Your task to perform on an android device: allow cookies in the chrome app Image 0: 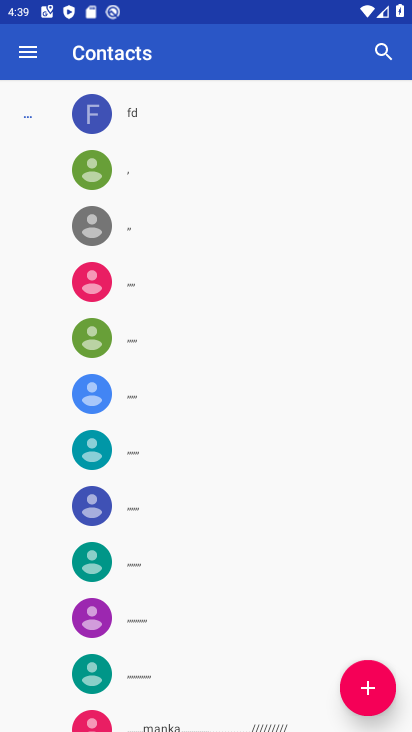
Step 0: press home button
Your task to perform on an android device: allow cookies in the chrome app Image 1: 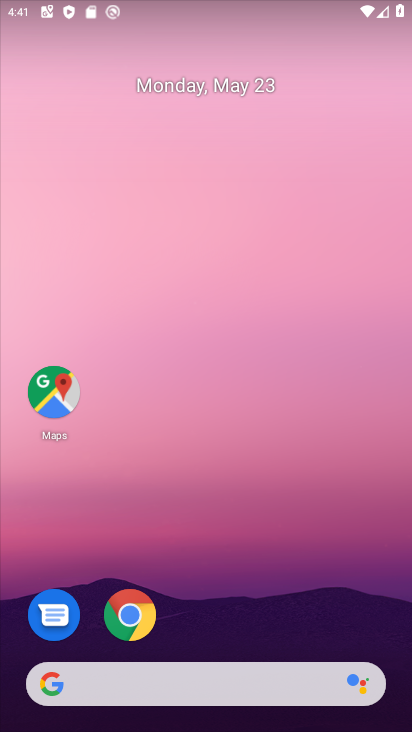
Step 1: click (146, 603)
Your task to perform on an android device: allow cookies in the chrome app Image 2: 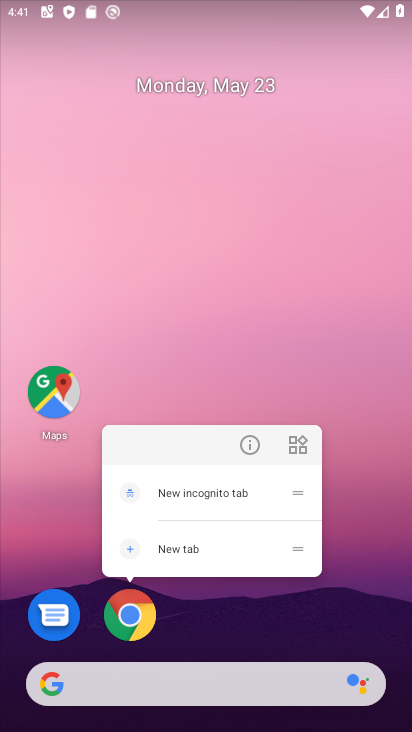
Step 2: click (130, 608)
Your task to perform on an android device: allow cookies in the chrome app Image 3: 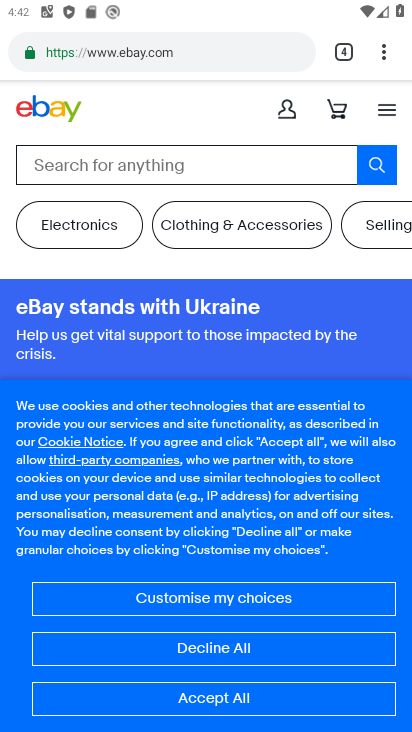
Step 3: drag from (386, 43) to (200, 623)
Your task to perform on an android device: allow cookies in the chrome app Image 4: 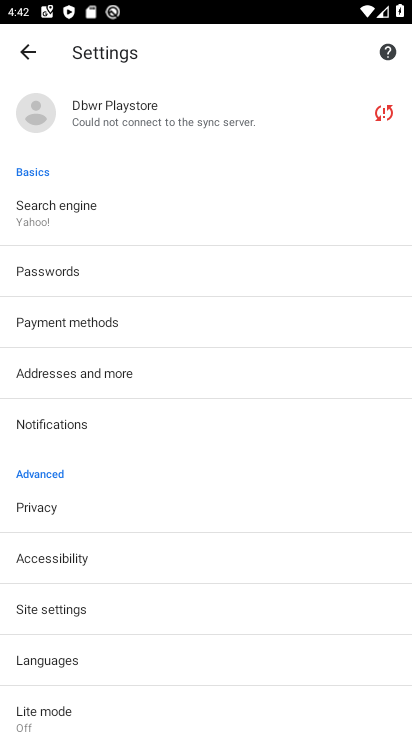
Step 4: click (80, 619)
Your task to perform on an android device: allow cookies in the chrome app Image 5: 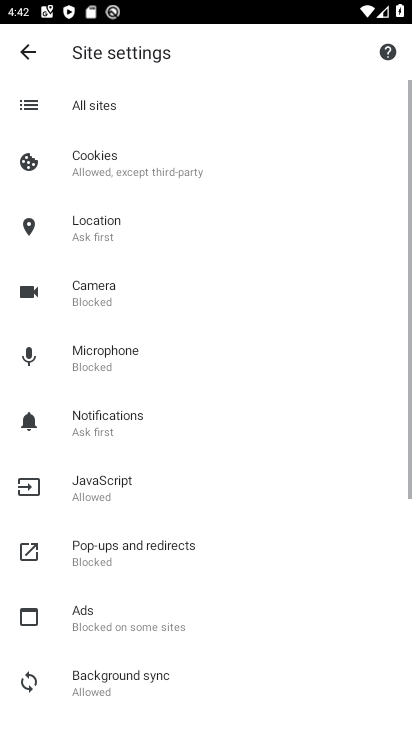
Step 5: click (86, 176)
Your task to perform on an android device: allow cookies in the chrome app Image 6: 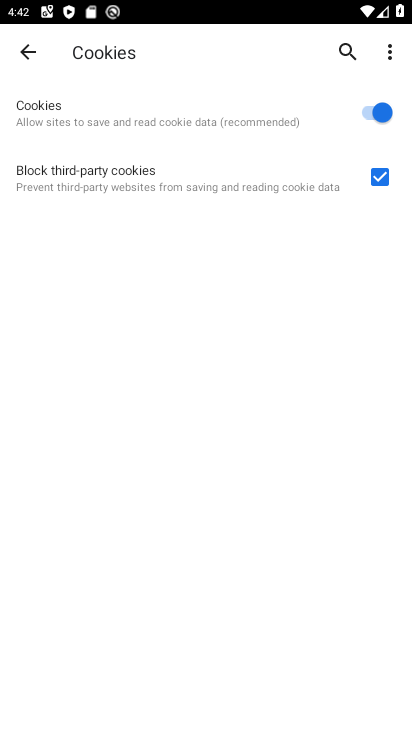
Step 6: task complete